Your task to perform on an android device: turn pop-ups off in chrome Image 0: 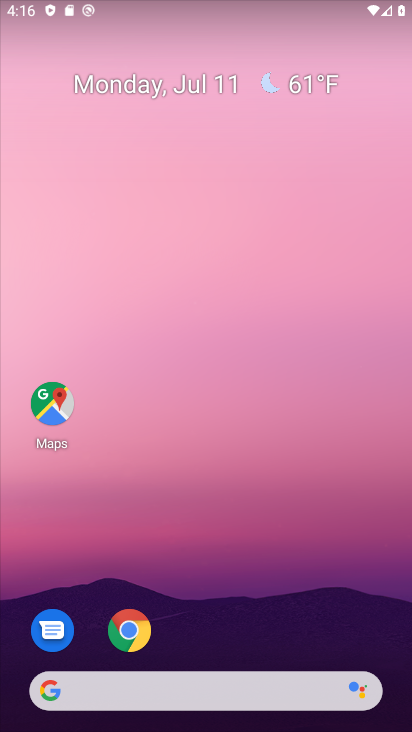
Step 0: drag from (296, 582) to (411, 0)
Your task to perform on an android device: turn pop-ups off in chrome Image 1: 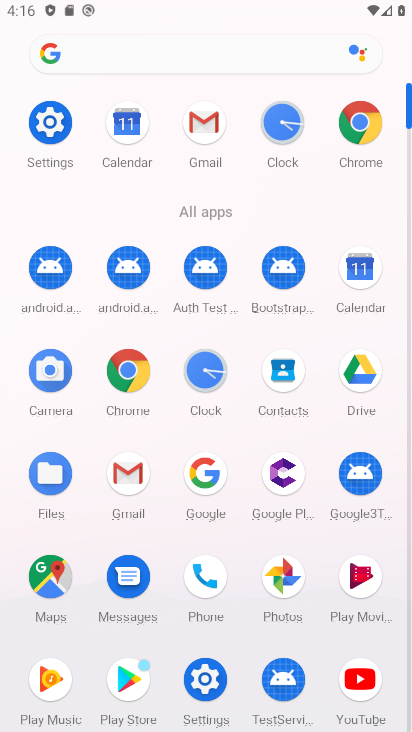
Step 1: click (358, 151)
Your task to perform on an android device: turn pop-ups off in chrome Image 2: 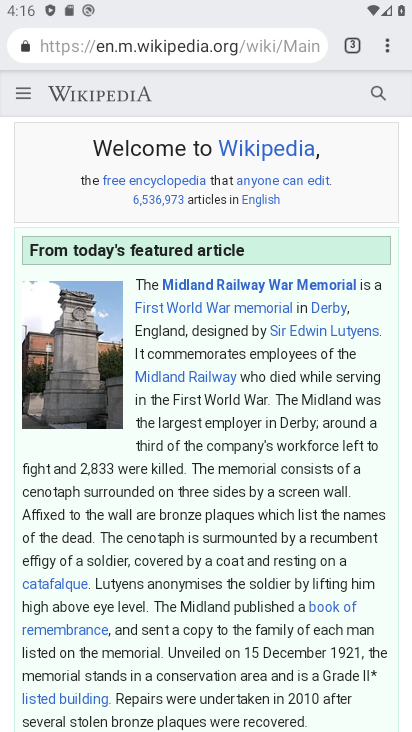
Step 2: drag from (384, 39) to (233, 549)
Your task to perform on an android device: turn pop-ups off in chrome Image 3: 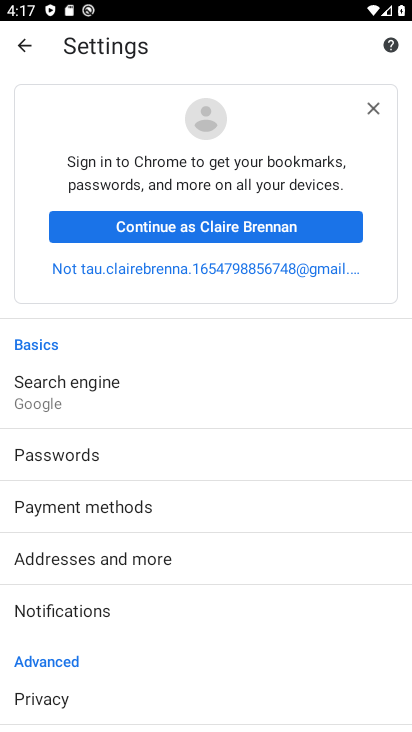
Step 3: drag from (124, 521) to (178, 289)
Your task to perform on an android device: turn pop-ups off in chrome Image 4: 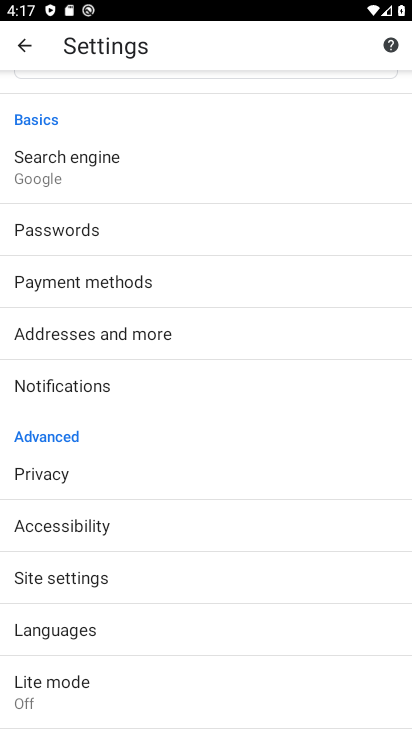
Step 4: click (86, 576)
Your task to perform on an android device: turn pop-ups off in chrome Image 5: 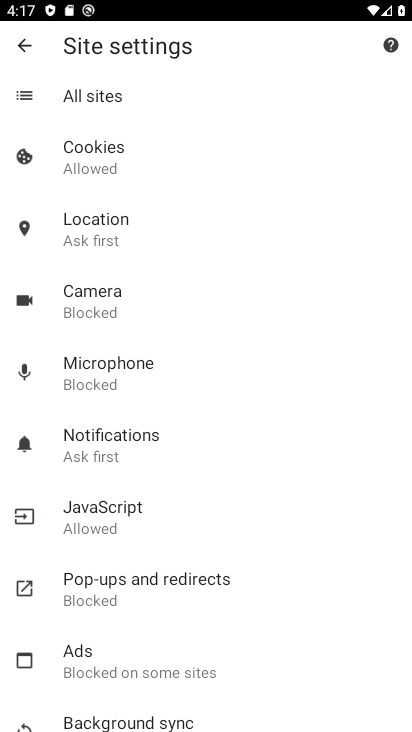
Step 5: click (114, 591)
Your task to perform on an android device: turn pop-ups off in chrome Image 6: 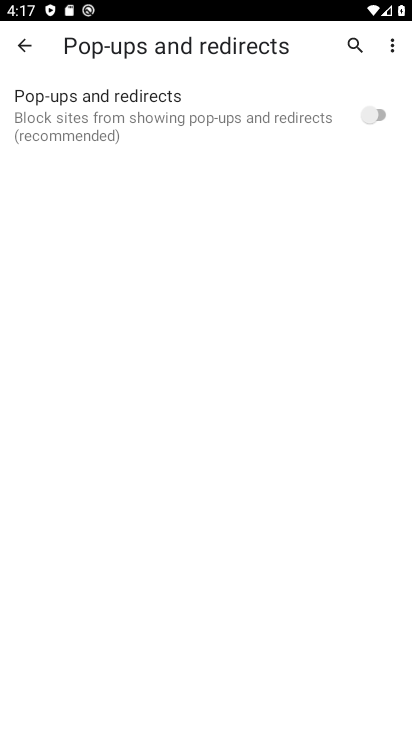
Step 6: task complete